Your task to perform on an android device: open app "Instagram" (install if not already installed) and enter user name: "nobler@yahoo.com" and password: "foraging" Image 0: 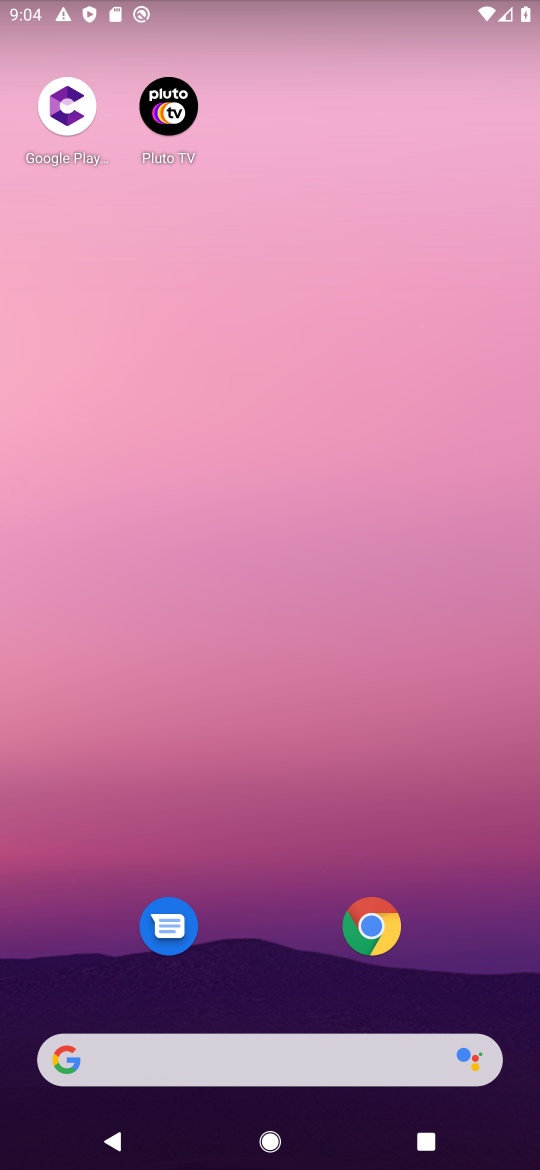
Step 0: drag from (234, 1029) to (306, 263)
Your task to perform on an android device: open app "Instagram" (install if not already installed) and enter user name: "nobler@yahoo.com" and password: "foraging" Image 1: 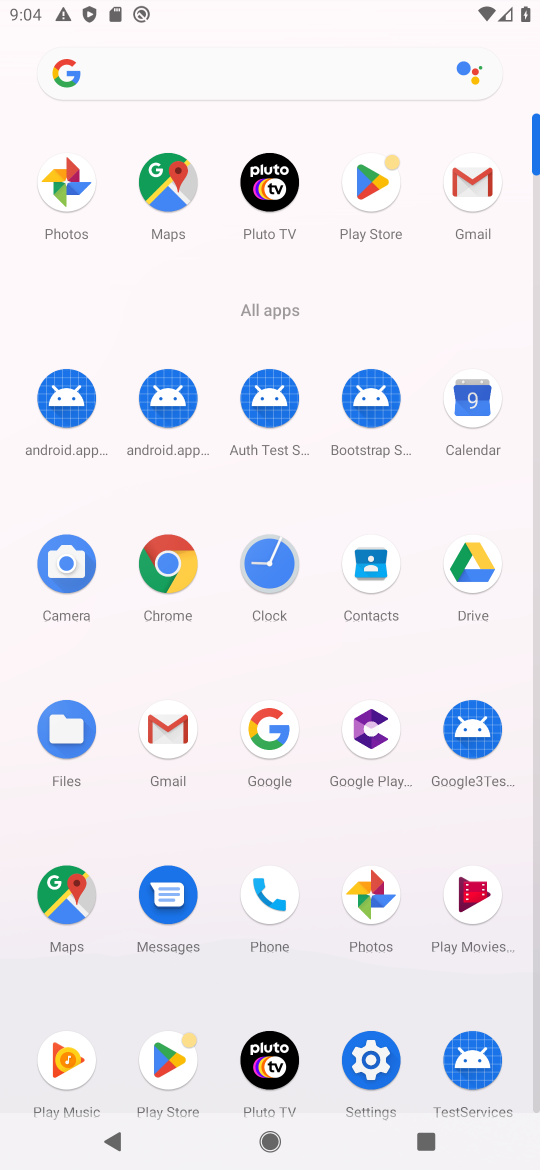
Step 1: click (157, 1061)
Your task to perform on an android device: open app "Instagram" (install if not already installed) and enter user name: "nobler@yahoo.com" and password: "foraging" Image 2: 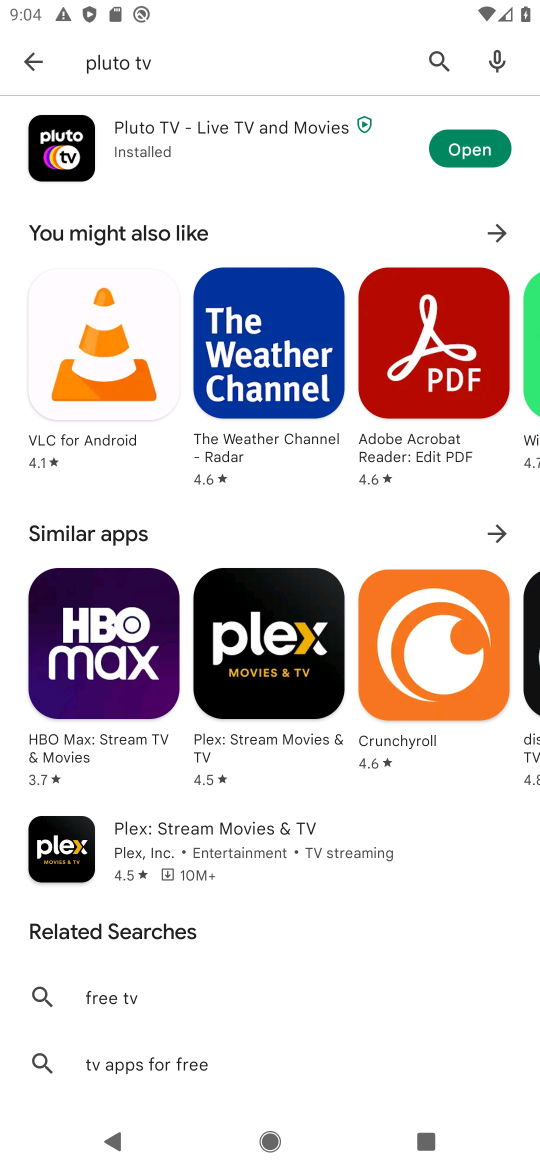
Step 2: click (161, 60)
Your task to perform on an android device: open app "Instagram" (install if not already installed) and enter user name: "nobler@yahoo.com" and password: "foraging" Image 3: 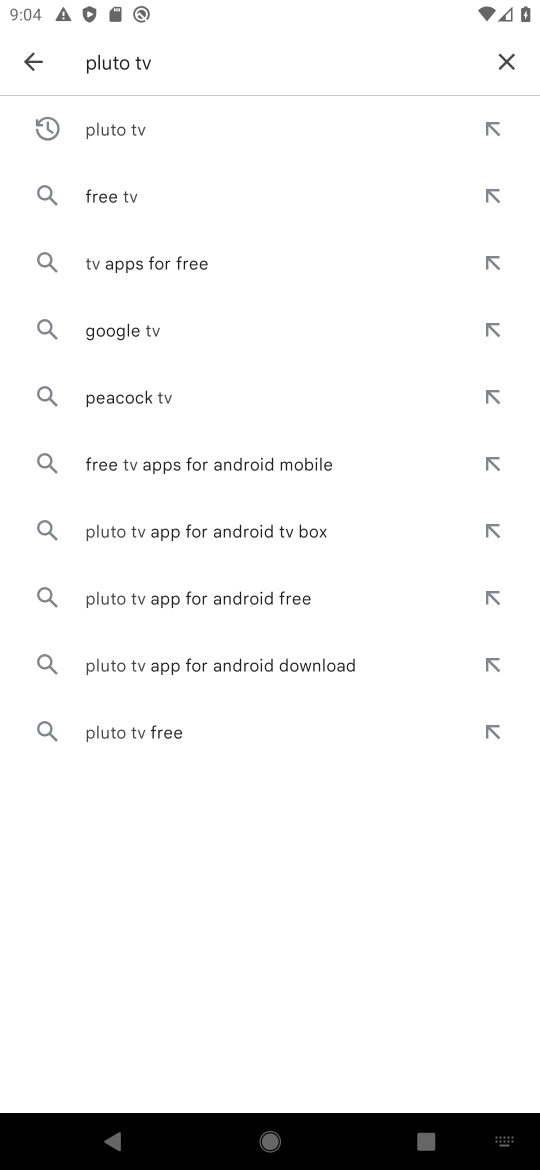
Step 3: click (510, 65)
Your task to perform on an android device: open app "Instagram" (install if not already installed) and enter user name: "nobler@yahoo.com" and password: "foraging" Image 4: 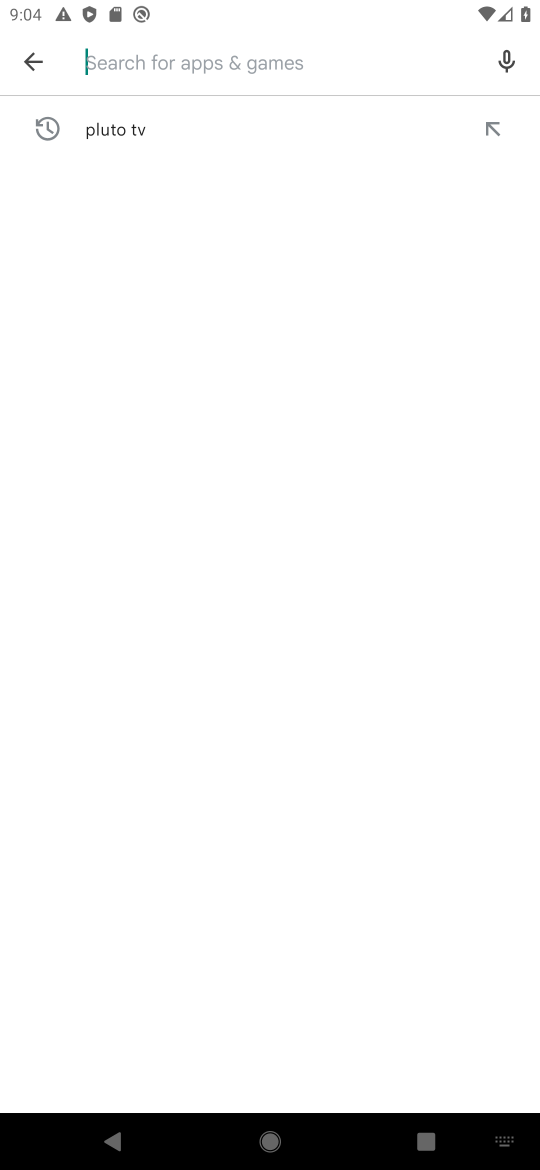
Step 4: type "Instagram"
Your task to perform on an android device: open app "Instagram" (install if not already installed) and enter user name: "nobler@yahoo.com" and password: "foraging" Image 5: 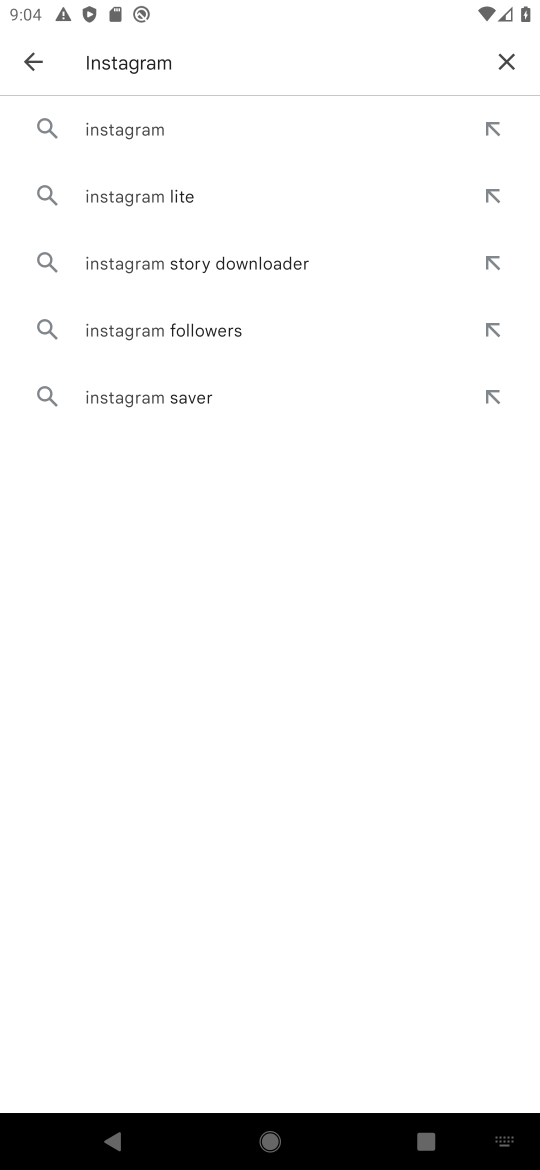
Step 5: click (130, 122)
Your task to perform on an android device: open app "Instagram" (install if not already installed) and enter user name: "nobler@yahoo.com" and password: "foraging" Image 6: 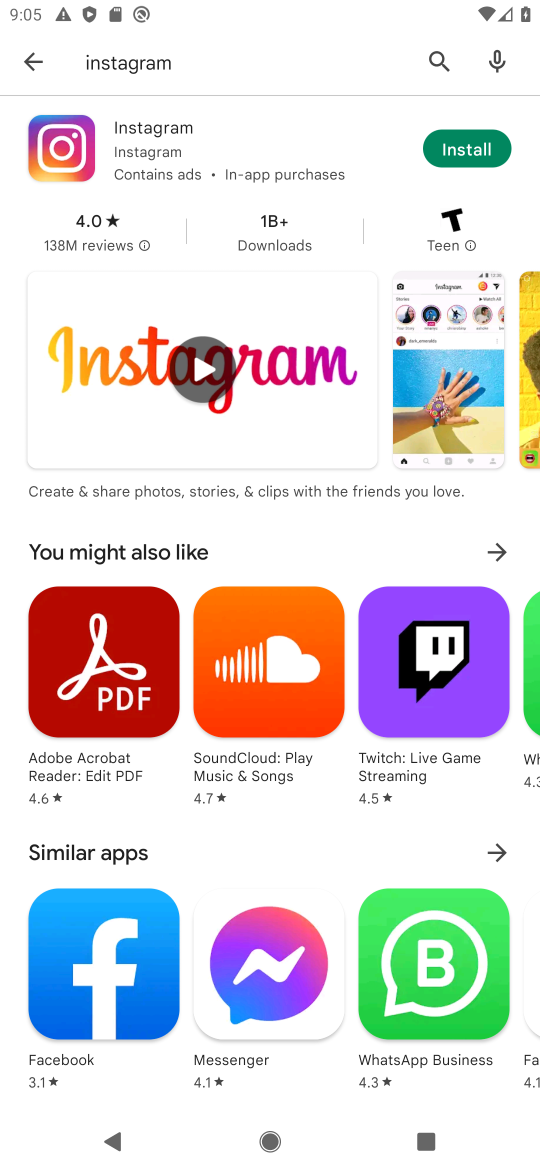
Step 6: click (477, 146)
Your task to perform on an android device: open app "Instagram" (install if not already installed) and enter user name: "nobler@yahoo.com" and password: "foraging" Image 7: 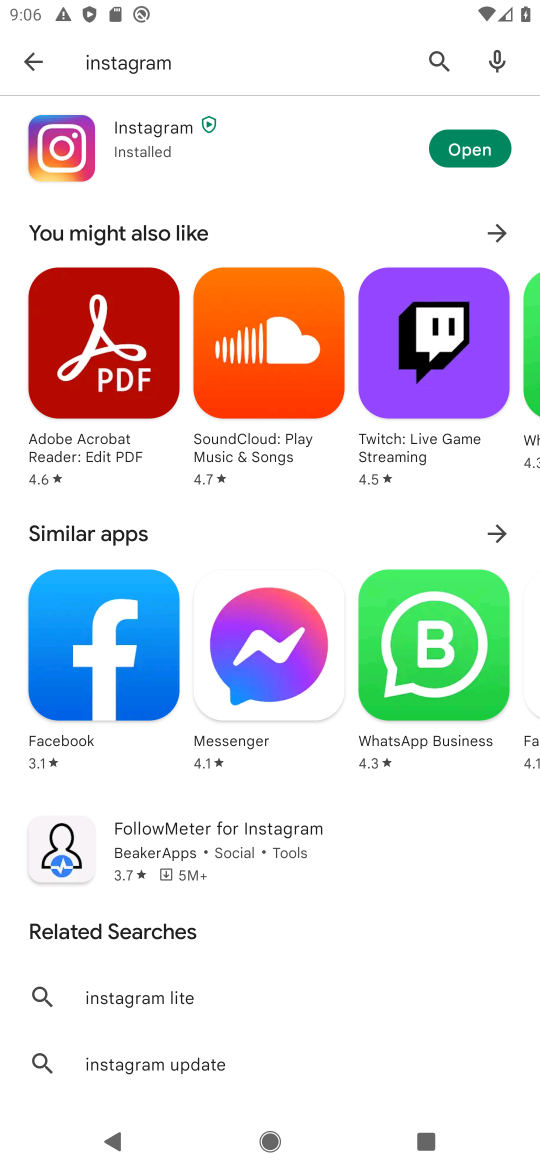
Step 7: click (474, 146)
Your task to perform on an android device: open app "Instagram" (install if not already installed) and enter user name: "nobler@yahoo.com" and password: "foraging" Image 8: 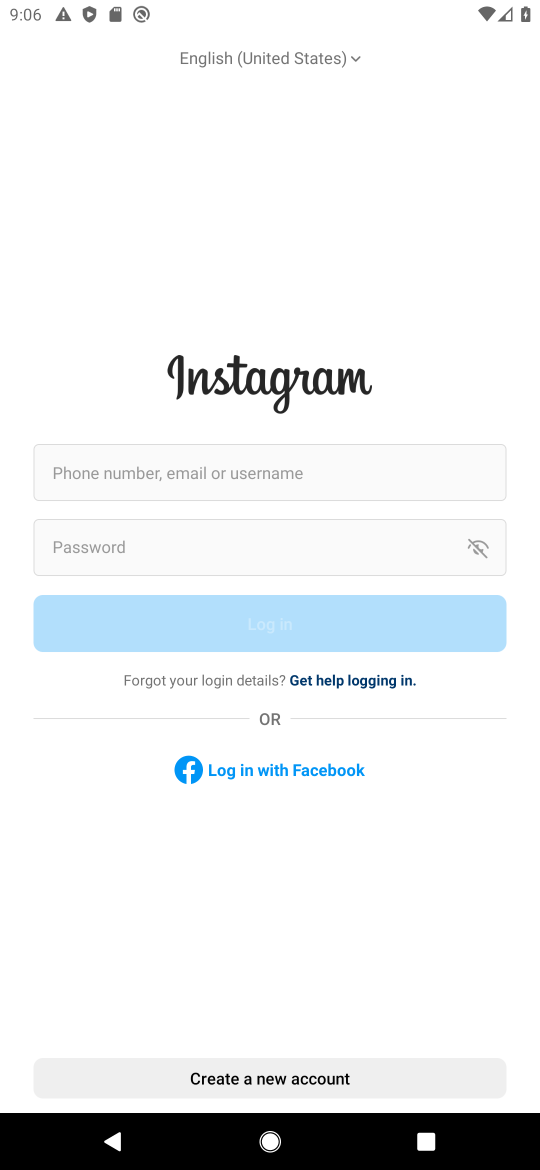
Step 8: click (181, 479)
Your task to perform on an android device: open app "Instagram" (install if not already installed) and enter user name: "nobler@yahoo.com" and password: "foraging" Image 9: 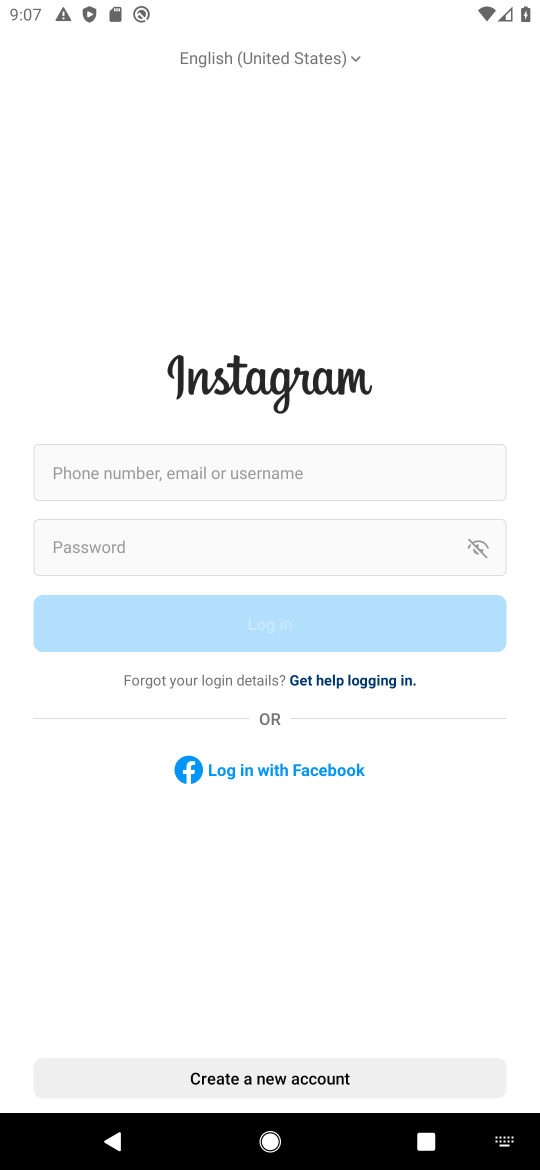
Step 9: type "nobler@yahoo.com"
Your task to perform on an android device: open app "Instagram" (install if not already installed) and enter user name: "nobler@yahoo.com" and password: "foraging" Image 10: 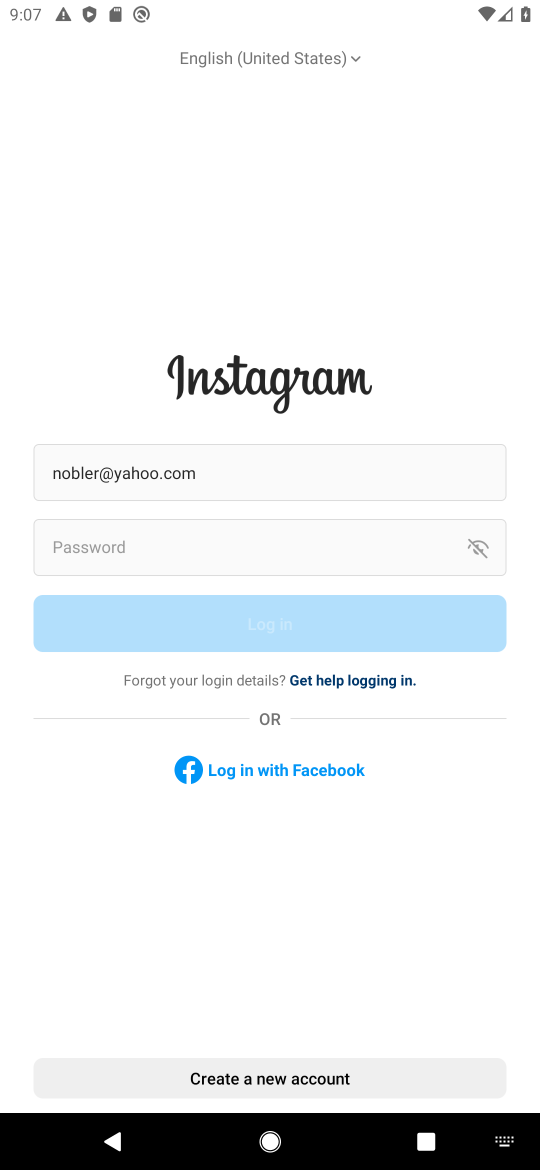
Step 10: click (334, 540)
Your task to perform on an android device: open app "Instagram" (install if not already installed) and enter user name: "nobler@yahoo.com" and password: "foraging" Image 11: 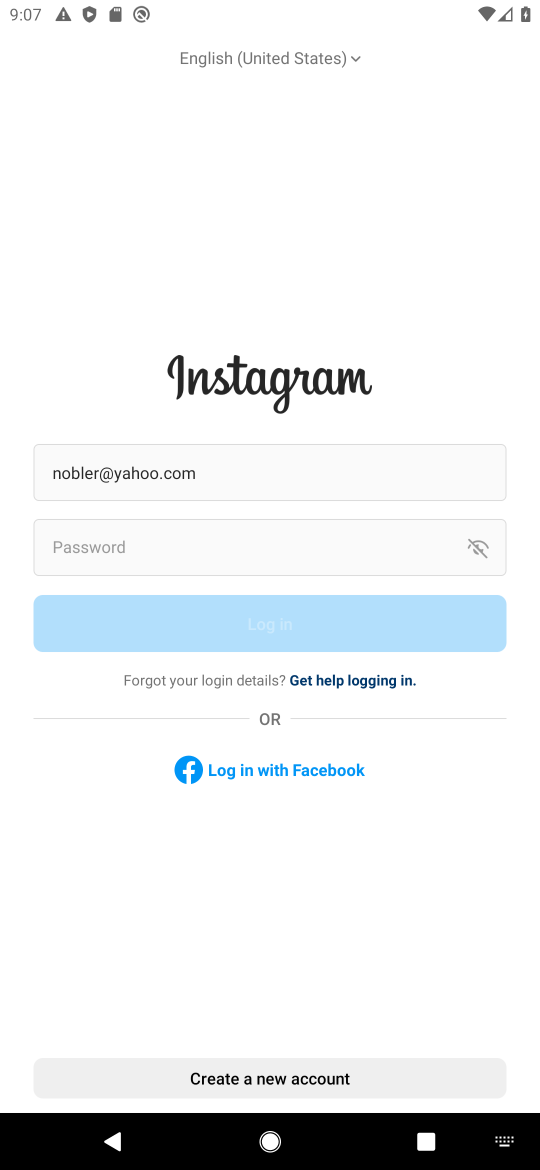
Step 11: type "foraging"
Your task to perform on an android device: open app "Instagram" (install if not already installed) and enter user name: "nobler@yahoo.com" and password: "foraging" Image 12: 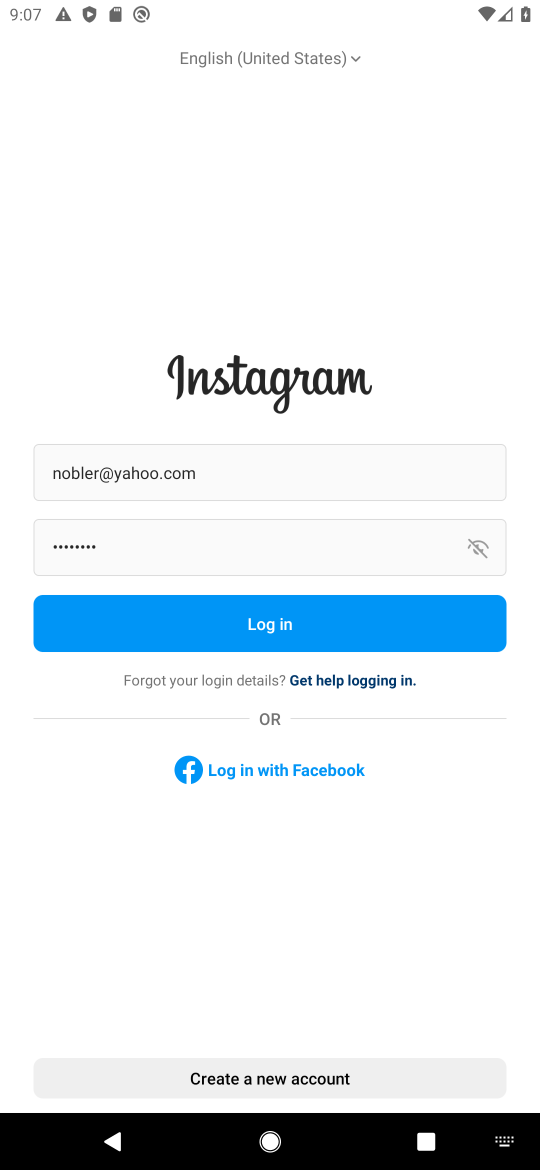
Step 12: click (203, 612)
Your task to perform on an android device: open app "Instagram" (install if not already installed) and enter user name: "nobler@yahoo.com" and password: "foraging" Image 13: 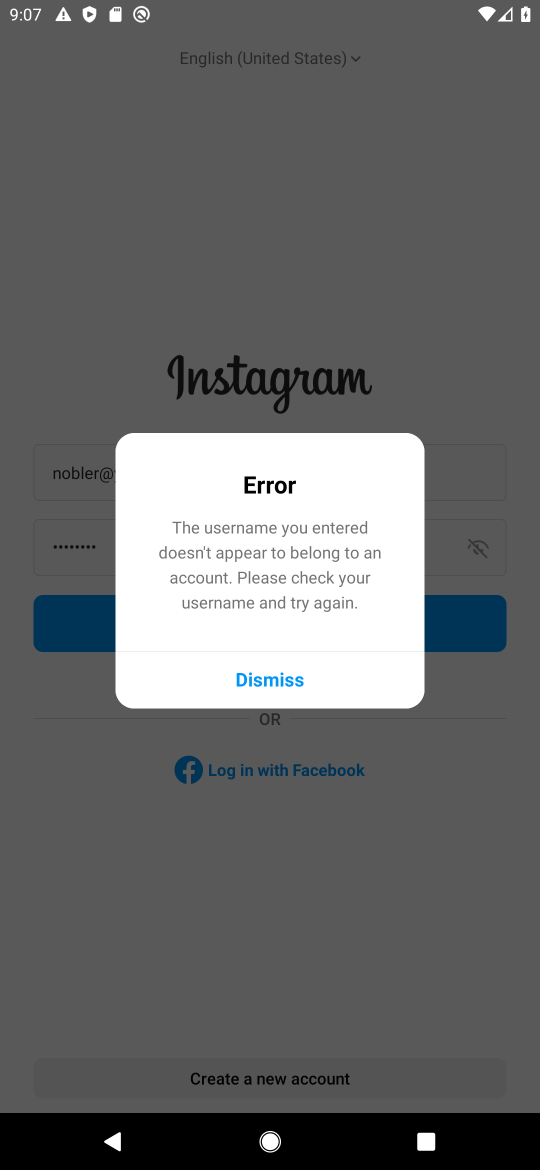
Step 13: click (263, 669)
Your task to perform on an android device: open app "Instagram" (install if not already installed) and enter user name: "nobler@yahoo.com" and password: "foraging" Image 14: 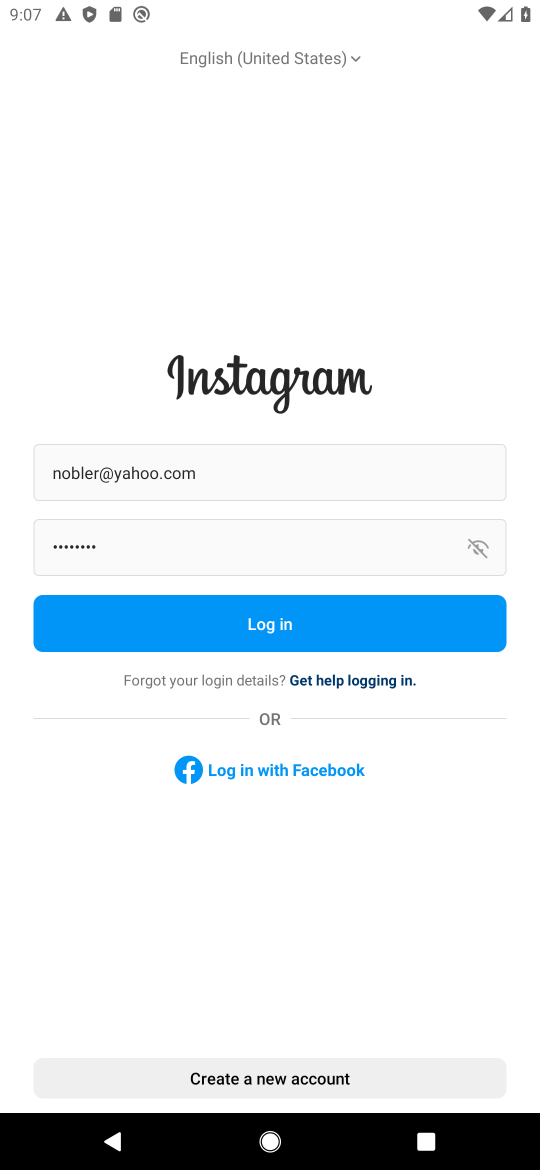
Step 14: task complete